Your task to perform on an android device: Go to sound settings Image 0: 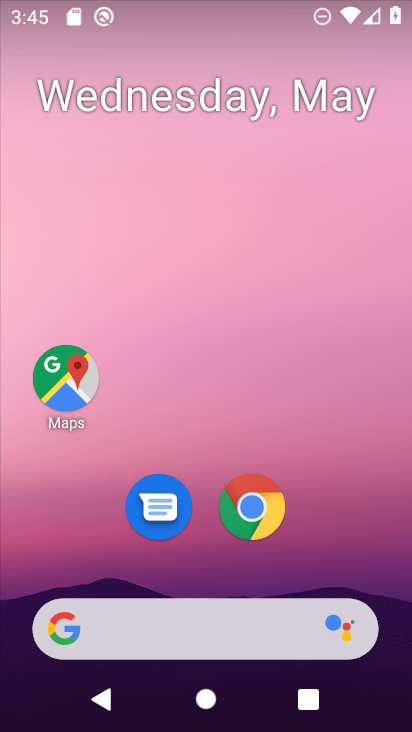
Step 0: drag from (207, 489) to (258, 2)
Your task to perform on an android device: Go to sound settings Image 1: 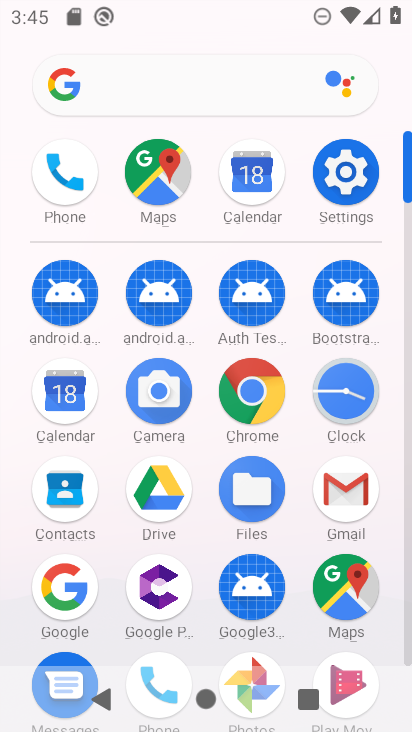
Step 1: click (363, 188)
Your task to perform on an android device: Go to sound settings Image 2: 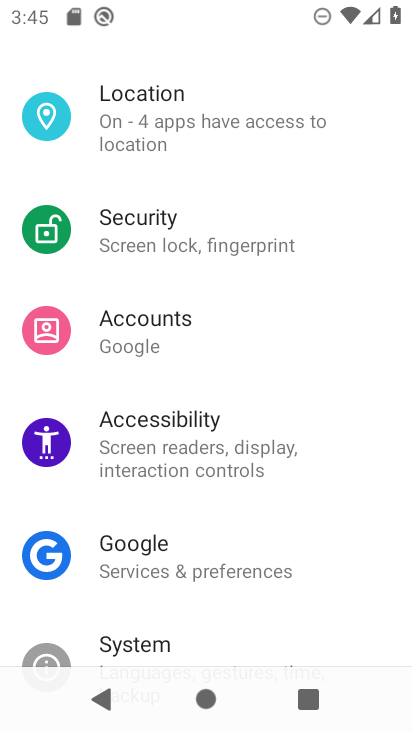
Step 2: drag from (177, 548) to (282, 103)
Your task to perform on an android device: Go to sound settings Image 3: 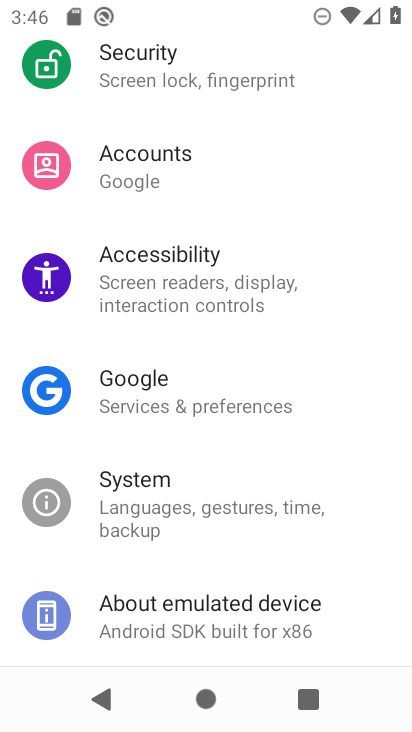
Step 3: drag from (196, 558) to (313, 75)
Your task to perform on an android device: Go to sound settings Image 4: 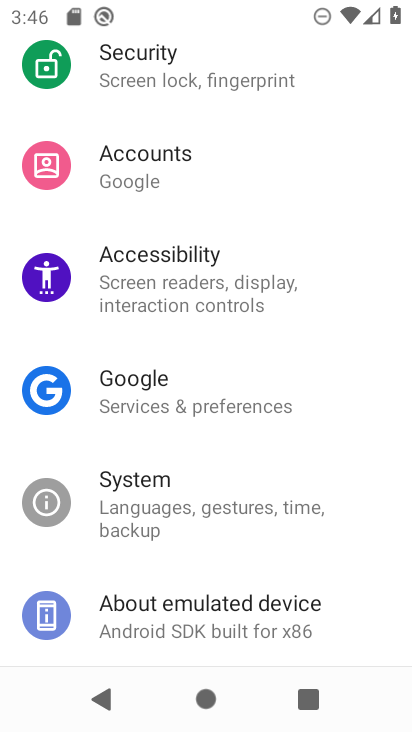
Step 4: drag from (204, 149) to (136, 646)
Your task to perform on an android device: Go to sound settings Image 5: 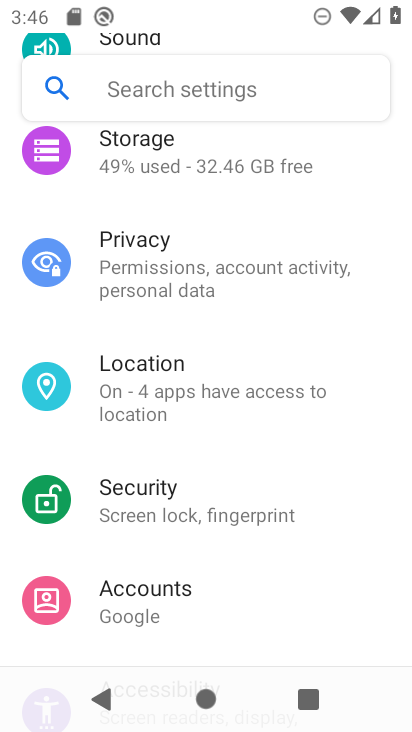
Step 5: drag from (168, 238) to (128, 635)
Your task to perform on an android device: Go to sound settings Image 6: 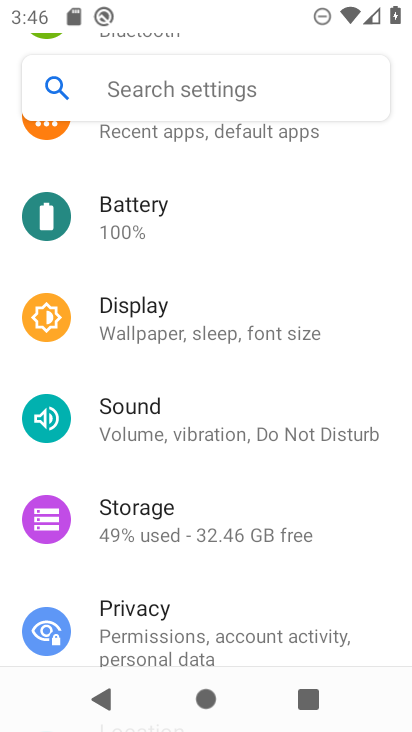
Step 6: click (140, 413)
Your task to perform on an android device: Go to sound settings Image 7: 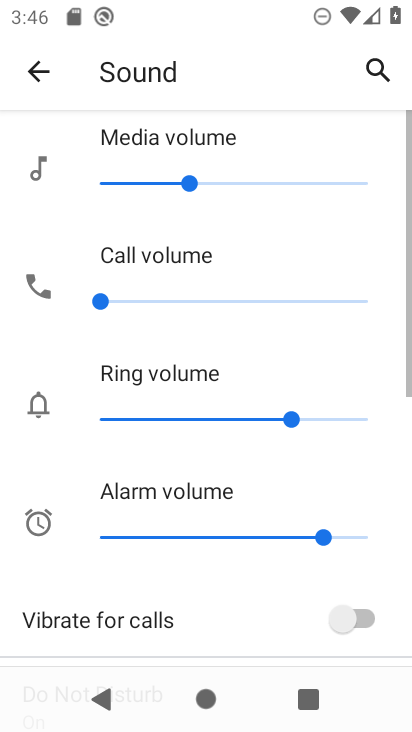
Step 7: task complete